Your task to perform on an android device: Go to notification settings Image 0: 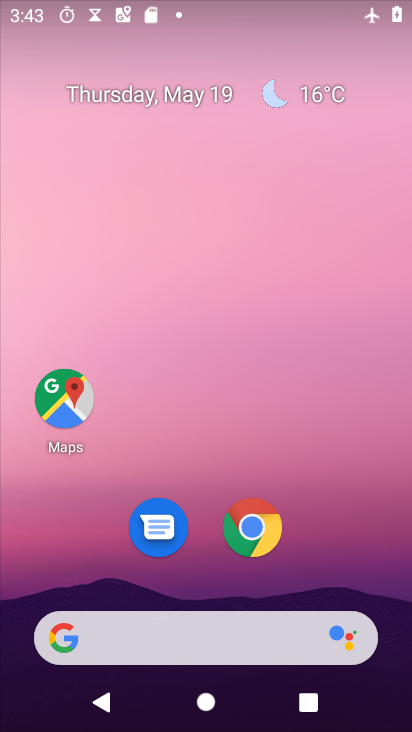
Step 0: drag from (335, 554) to (168, 46)
Your task to perform on an android device: Go to notification settings Image 1: 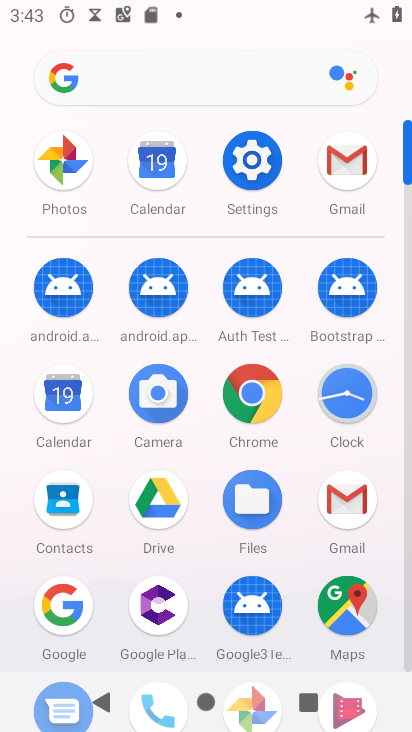
Step 1: click (178, 207)
Your task to perform on an android device: Go to notification settings Image 2: 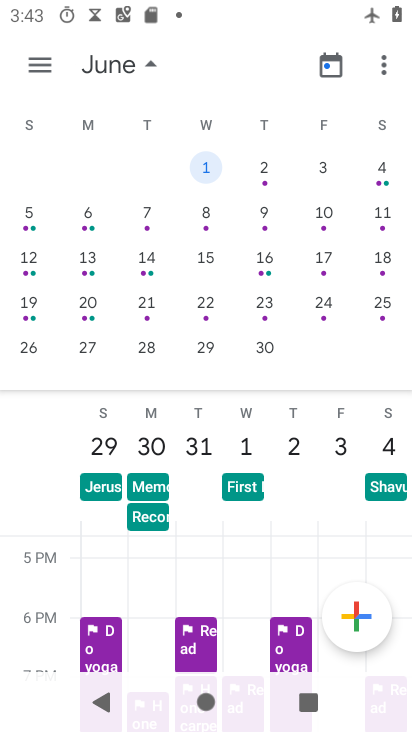
Step 2: press home button
Your task to perform on an android device: Go to notification settings Image 3: 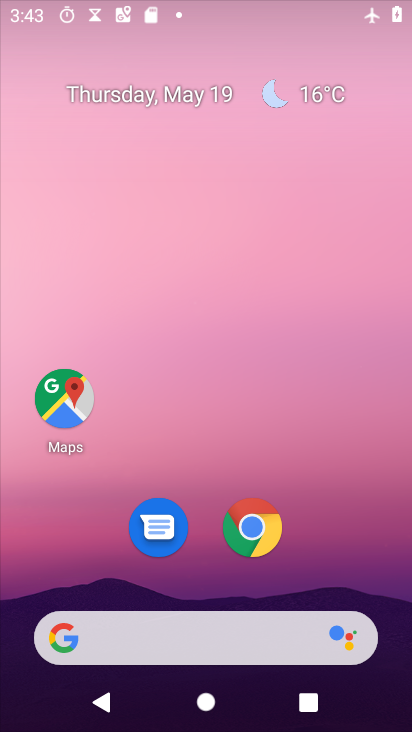
Step 3: drag from (350, 463) to (203, 42)
Your task to perform on an android device: Go to notification settings Image 4: 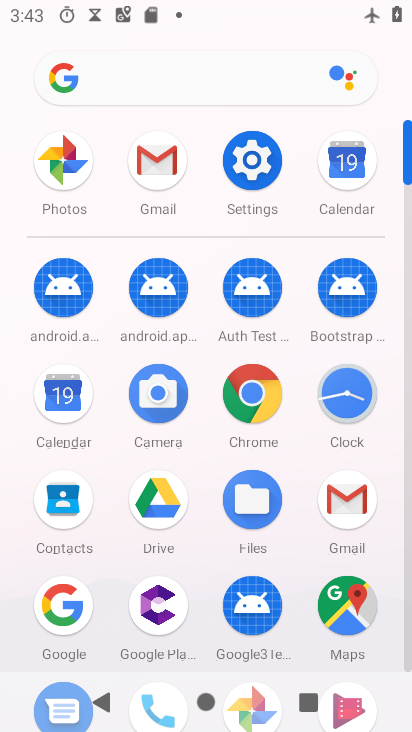
Step 4: click (254, 156)
Your task to perform on an android device: Go to notification settings Image 5: 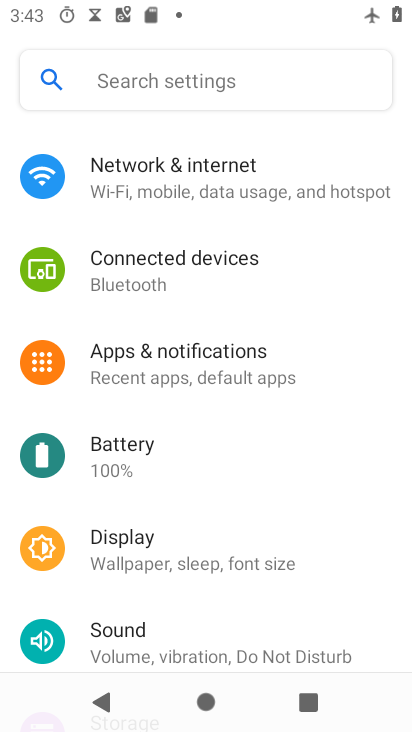
Step 5: click (226, 396)
Your task to perform on an android device: Go to notification settings Image 6: 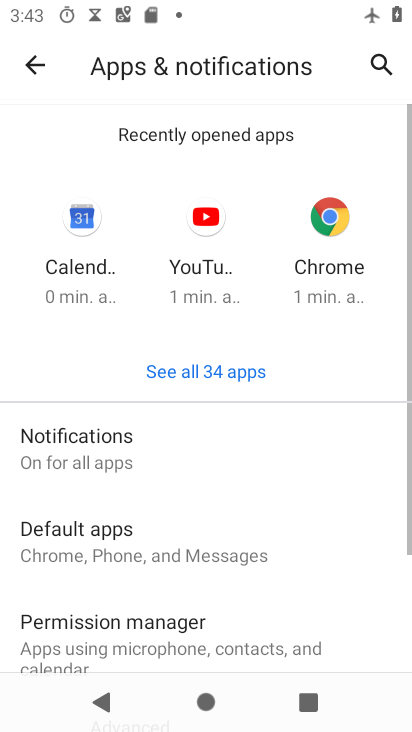
Step 6: task complete